Your task to perform on an android device: Open the stopwatch Image 0: 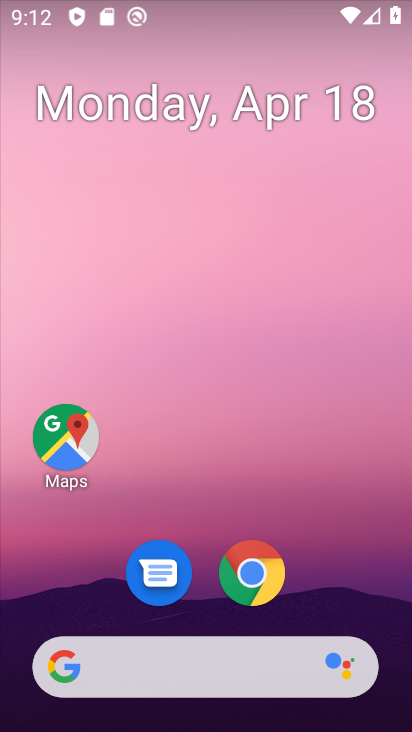
Step 0: drag from (392, 632) to (272, 22)
Your task to perform on an android device: Open the stopwatch Image 1: 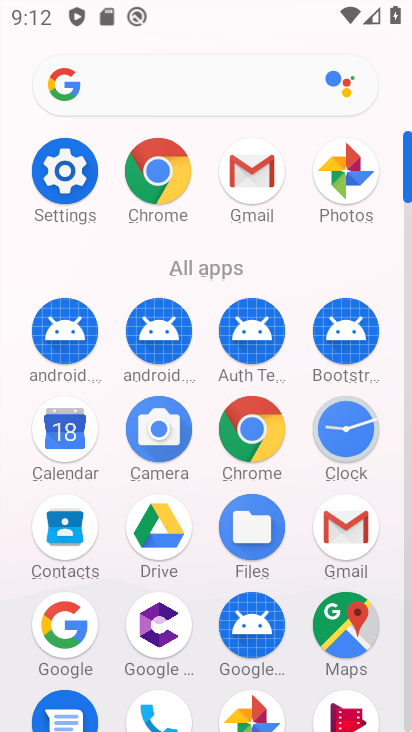
Step 1: click (345, 428)
Your task to perform on an android device: Open the stopwatch Image 2: 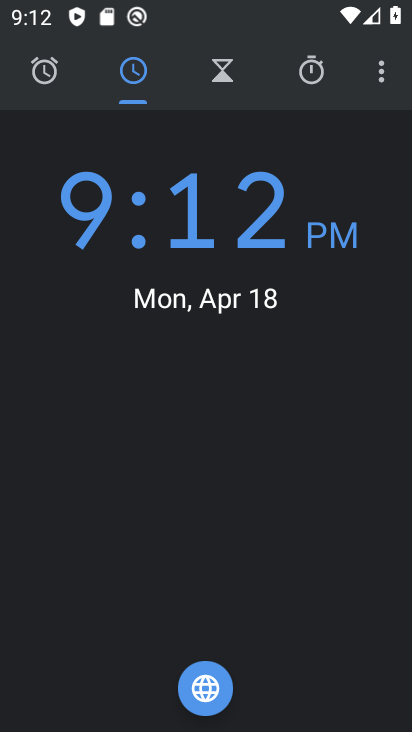
Step 2: click (310, 66)
Your task to perform on an android device: Open the stopwatch Image 3: 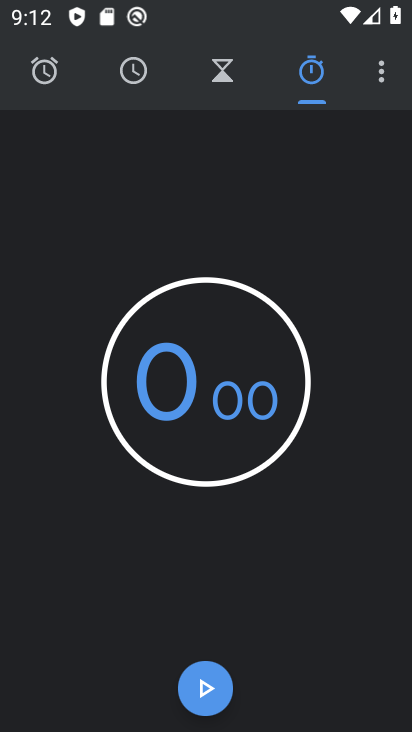
Step 3: task complete